Your task to perform on an android device: Turn on the flashlight Image 0: 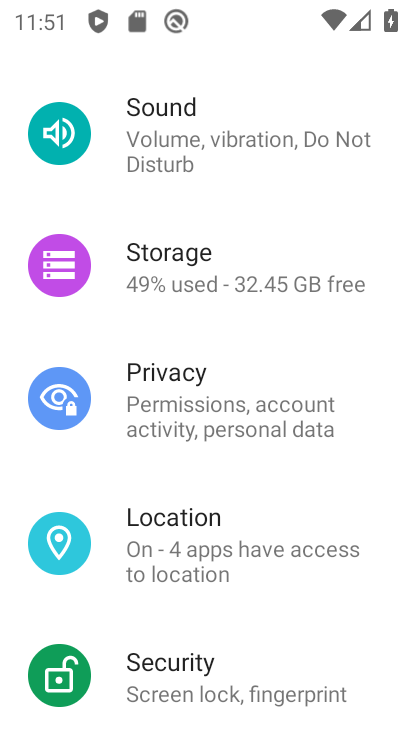
Step 0: drag from (273, 217) to (211, 701)
Your task to perform on an android device: Turn on the flashlight Image 1: 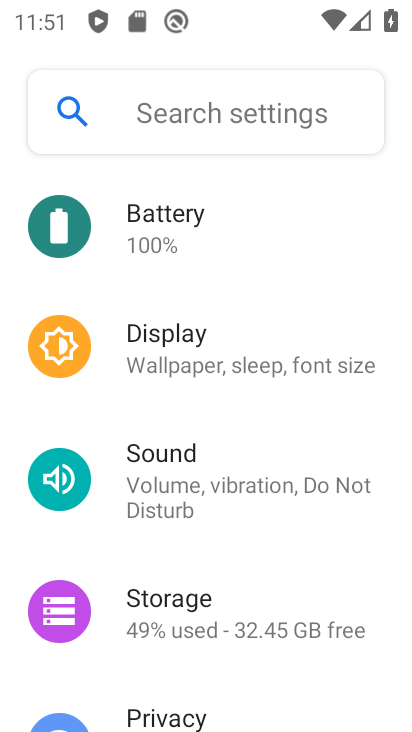
Step 1: click (208, 112)
Your task to perform on an android device: Turn on the flashlight Image 2: 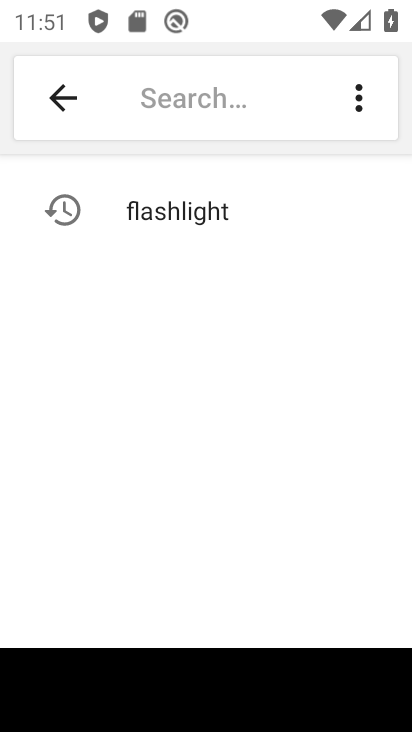
Step 2: click (189, 201)
Your task to perform on an android device: Turn on the flashlight Image 3: 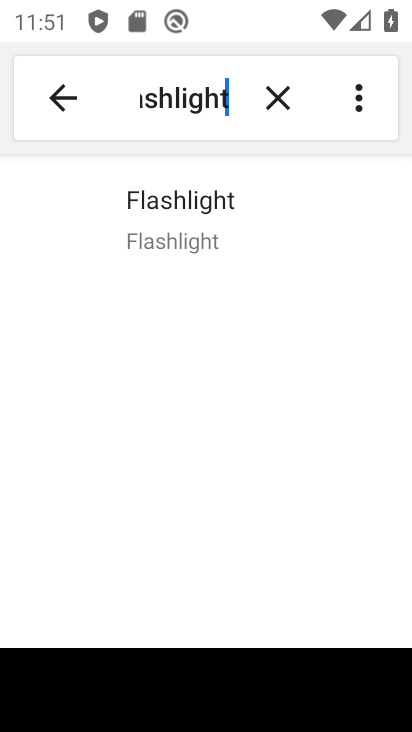
Step 3: click (162, 231)
Your task to perform on an android device: Turn on the flashlight Image 4: 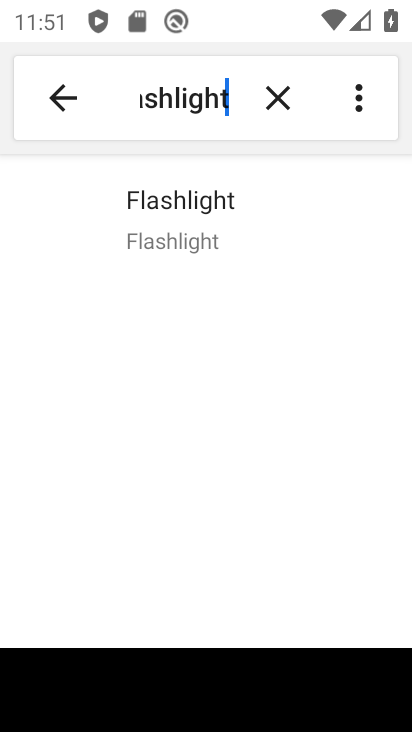
Step 4: click (196, 213)
Your task to perform on an android device: Turn on the flashlight Image 5: 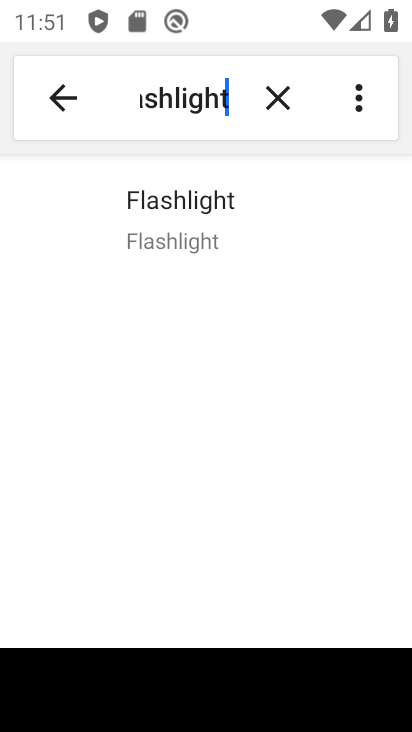
Step 5: click (186, 201)
Your task to perform on an android device: Turn on the flashlight Image 6: 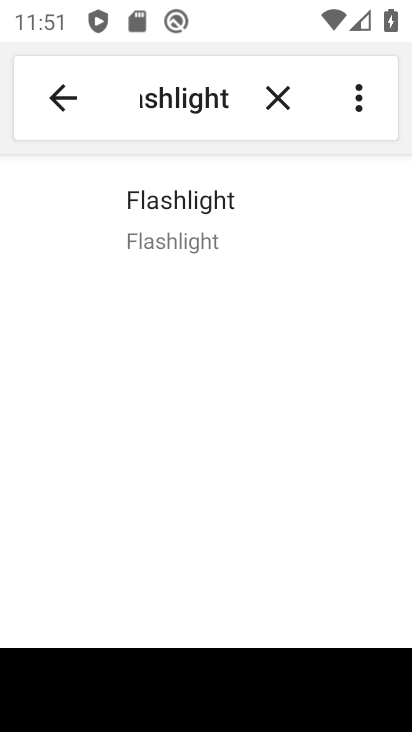
Step 6: click (184, 217)
Your task to perform on an android device: Turn on the flashlight Image 7: 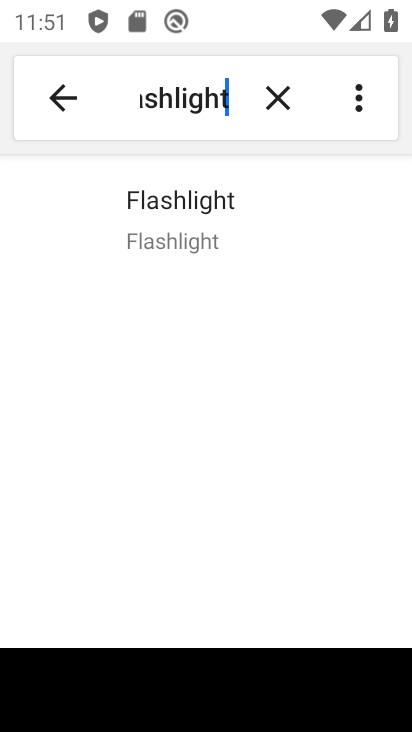
Step 7: task complete